Your task to perform on an android device: manage bookmarks in the chrome app Image 0: 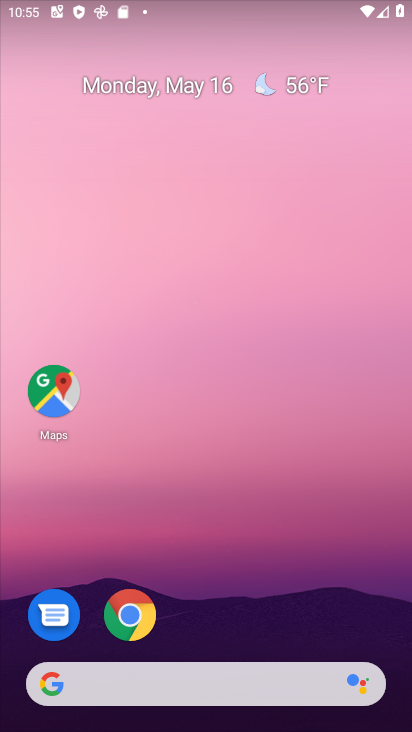
Step 0: drag from (239, 699) to (208, 238)
Your task to perform on an android device: manage bookmarks in the chrome app Image 1: 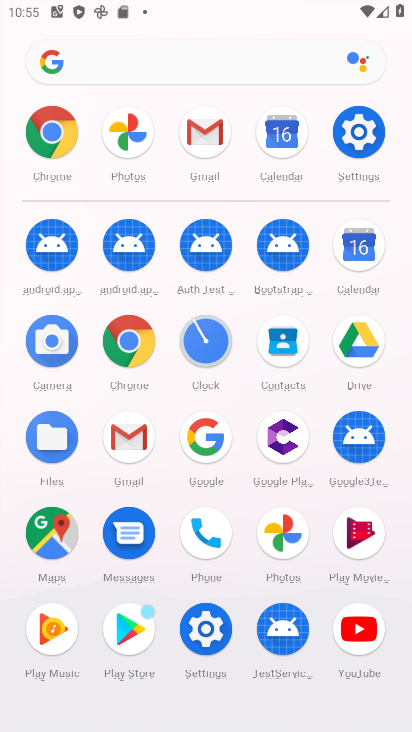
Step 1: click (39, 141)
Your task to perform on an android device: manage bookmarks in the chrome app Image 2: 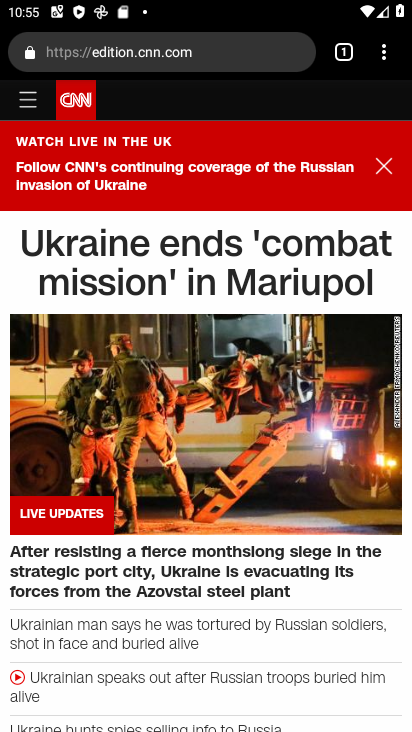
Step 2: click (379, 59)
Your task to perform on an android device: manage bookmarks in the chrome app Image 3: 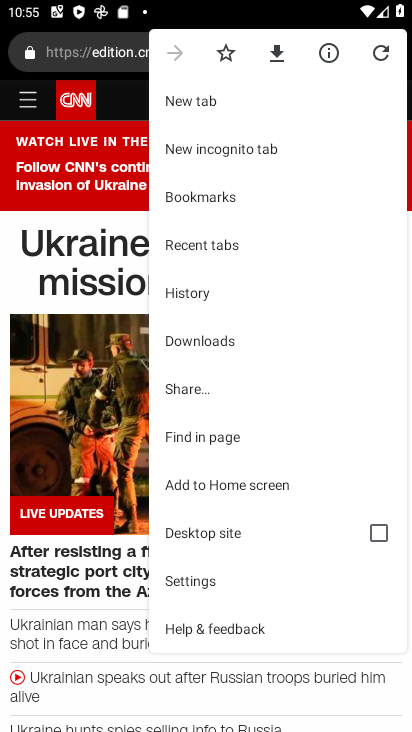
Step 3: click (198, 200)
Your task to perform on an android device: manage bookmarks in the chrome app Image 4: 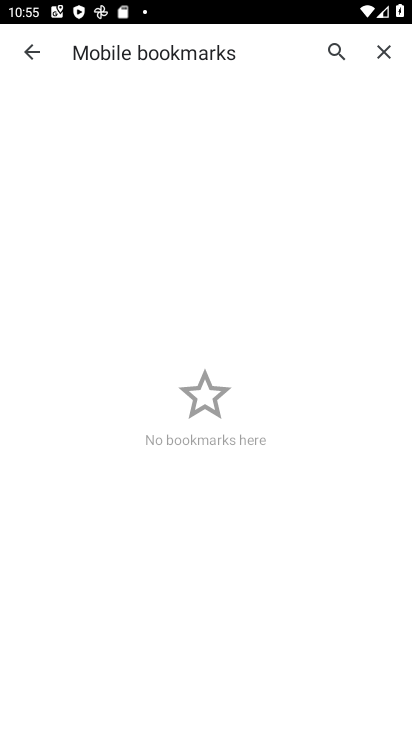
Step 4: task complete